Your task to perform on an android device: Go to Reddit.com Image 0: 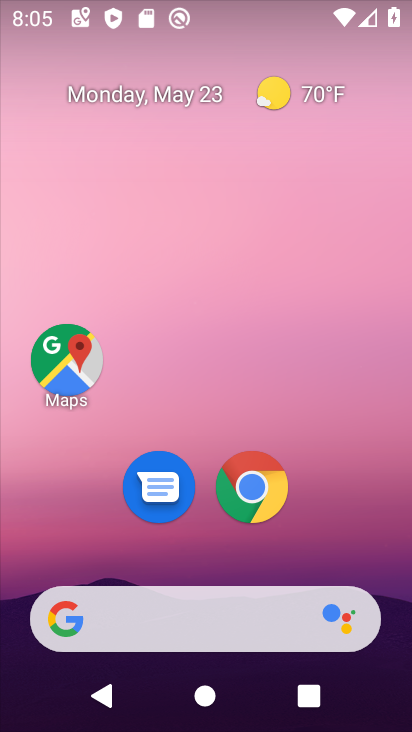
Step 0: drag from (179, 572) to (198, 129)
Your task to perform on an android device: Go to Reddit.com Image 1: 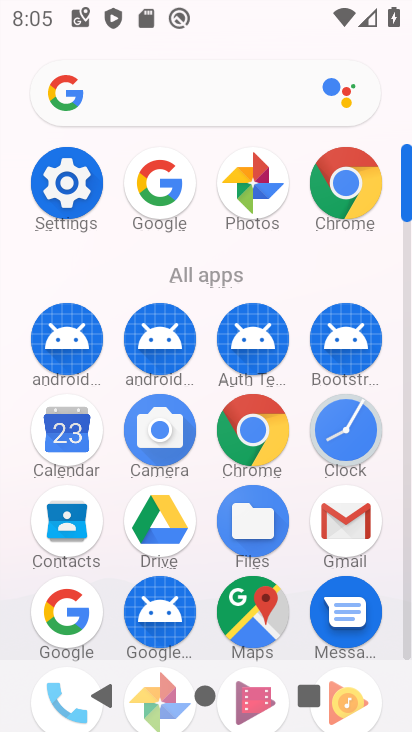
Step 1: click (162, 197)
Your task to perform on an android device: Go to Reddit.com Image 2: 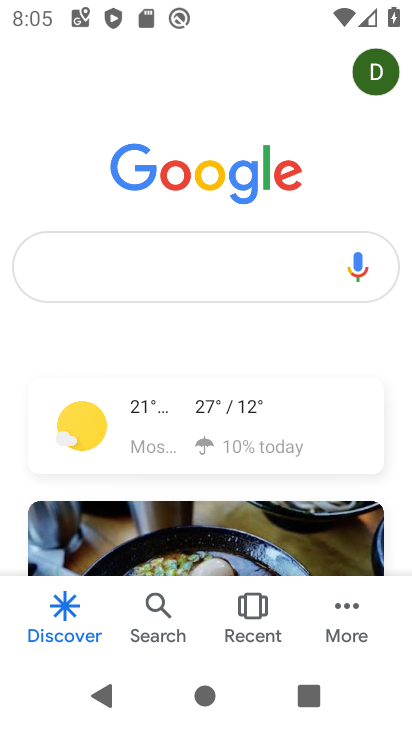
Step 2: click (137, 274)
Your task to perform on an android device: Go to Reddit.com Image 3: 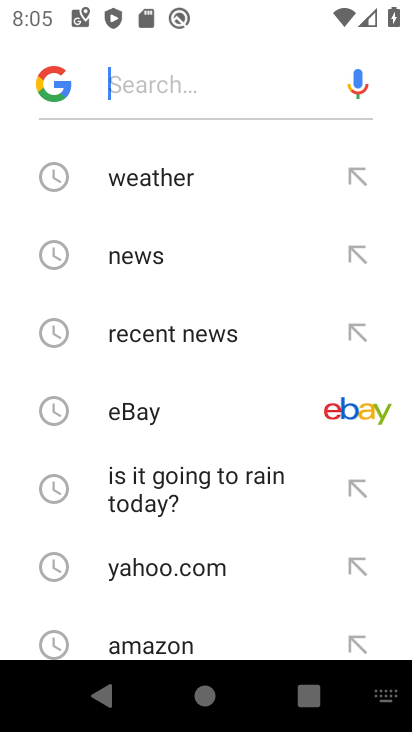
Step 3: drag from (169, 476) to (189, 247)
Your task to perform on an android device: Go to Reddit.com Image 4: 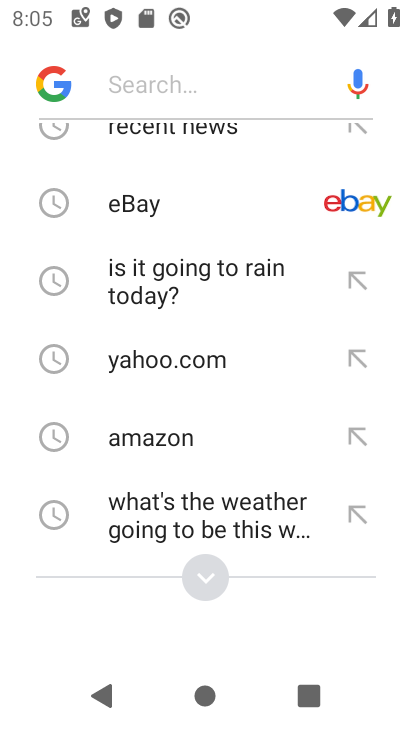
Step 4: click (206, 587)
Your task to perform on an android device: Go to Reddit.com Image 5: 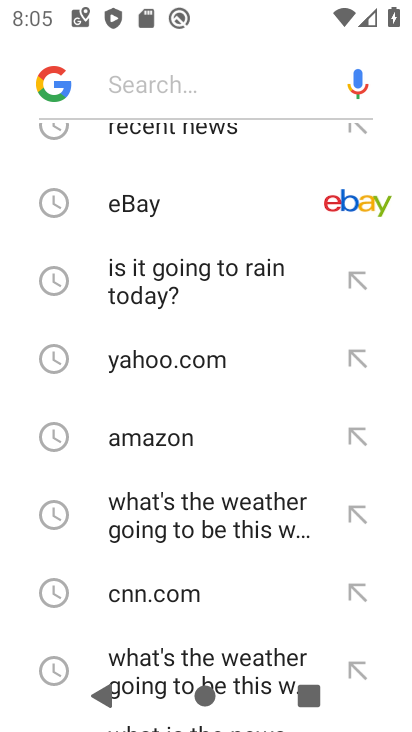
Step 5: drag from (208, 651) to (209, 348)
Your task to perform on an android device: Go to Reddit.com Image 6: 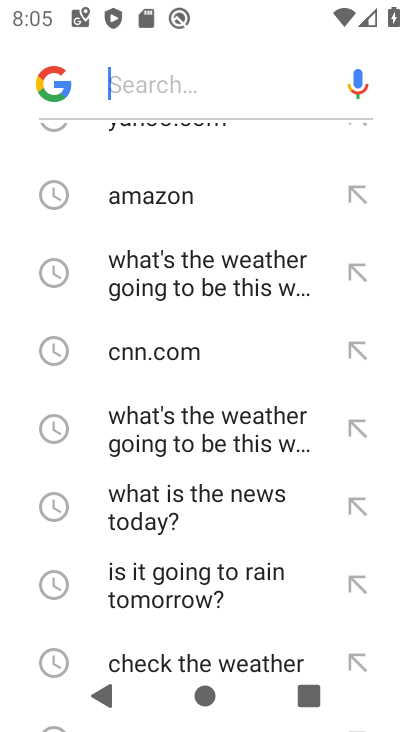
Step 6: drag from (207, 595) to (212, 163)
Your task to perform on an android device: Go to Reddit.com Image 7: 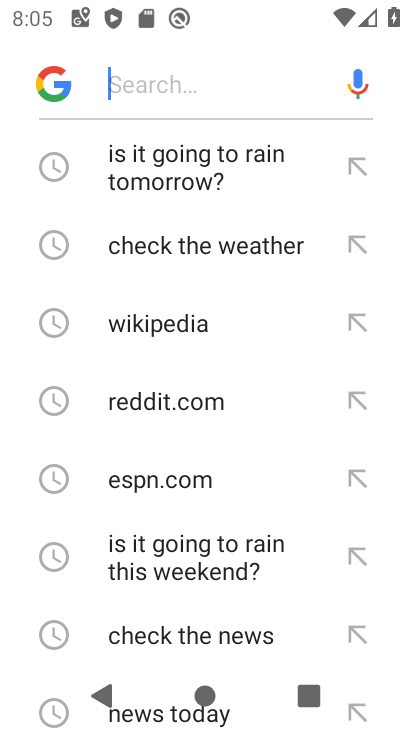
Step 7: click (190, 405)
Your task to perform on an android device: Go to Reddit.com Image 8: 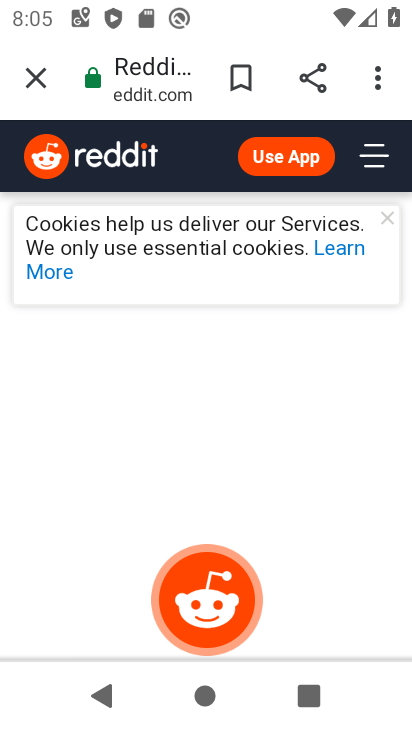
Step 8: task complete